Your task to perform on an android device: Turn on the flashlight Image 0: 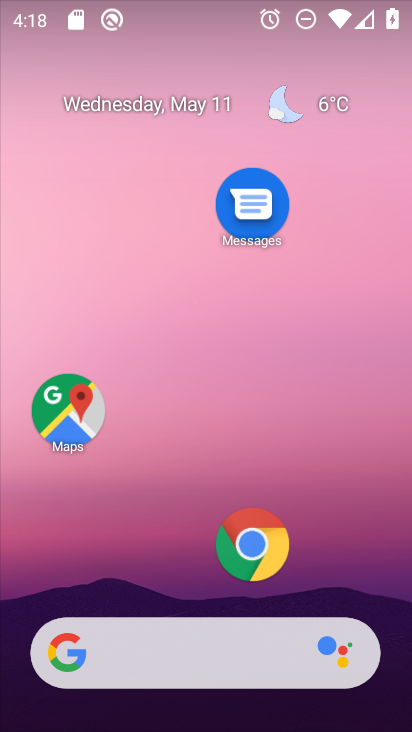
Step 0: drag from (123, 475) to (254, 15)
Your task to perform on an android device: Turn on the flashlight Image 1: 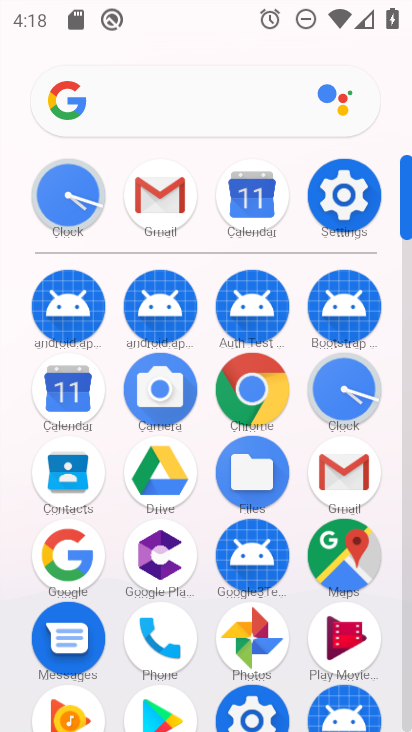
Step 1: click (354, 209)
Your task to perform on an android device: Turn on the flashlight Image 2: 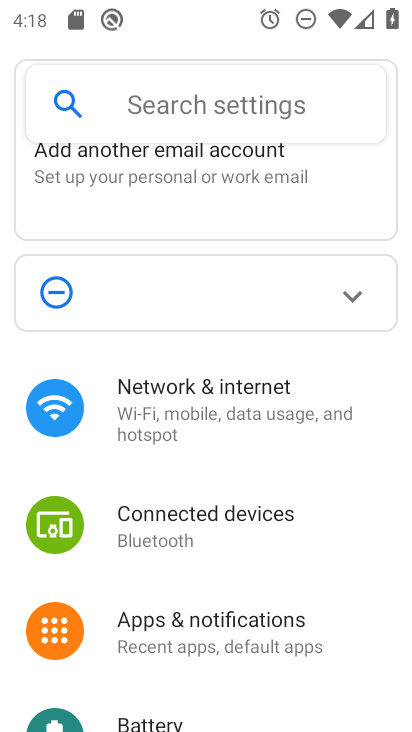
Step 2: click (214, 111)
Your task to perform on an android device: Turn on the flashlight Image 3: 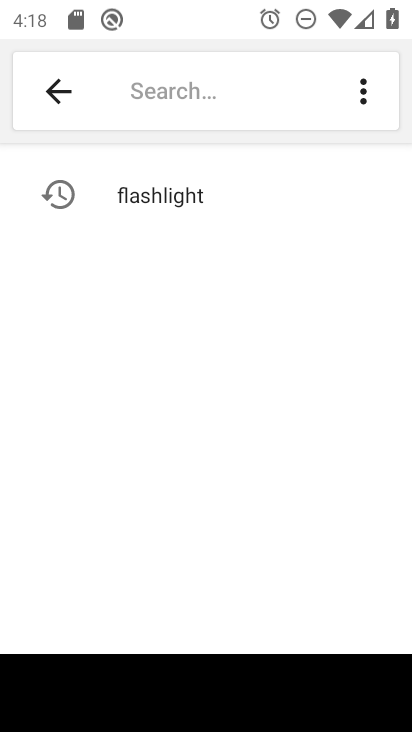
Step 3: type "flashlight"
Your task to perform on an android device: Turn on the flashlight Image 4: 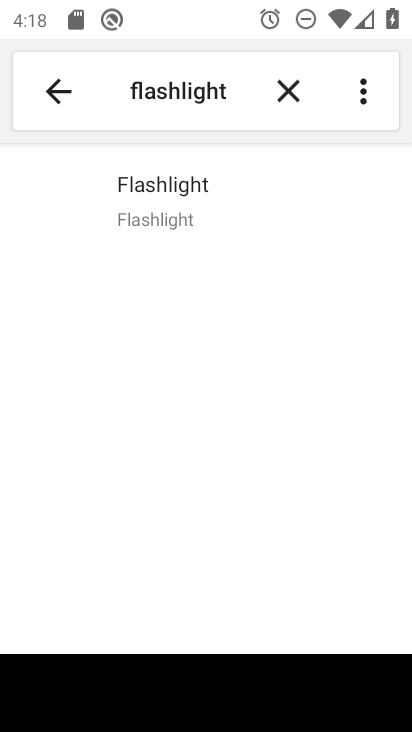
Step 4: click (166, 194)
Your task to perform on an android device: Turn on the flashlight Image 5: 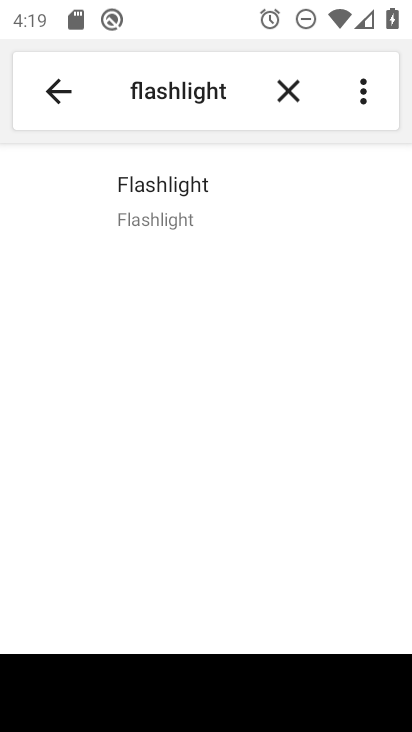
Step 5: click (152, 208)
Your task to perform on an android device: Turn on the flashlight Image 6: 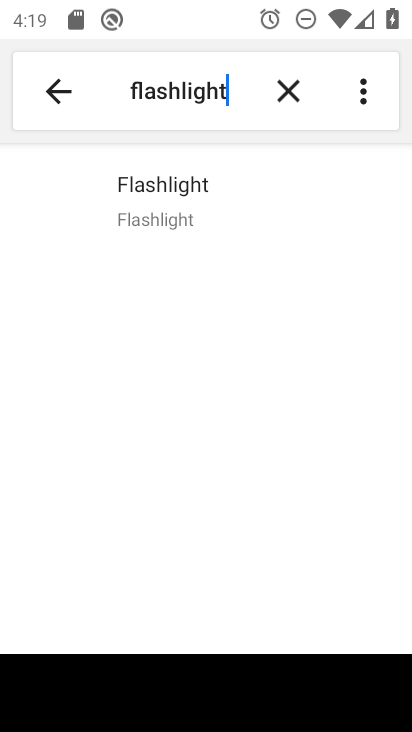
Step 6: task complete